Your task to perform on an android device: uninstall "Walmart Shopping & Grocery" Image 0: 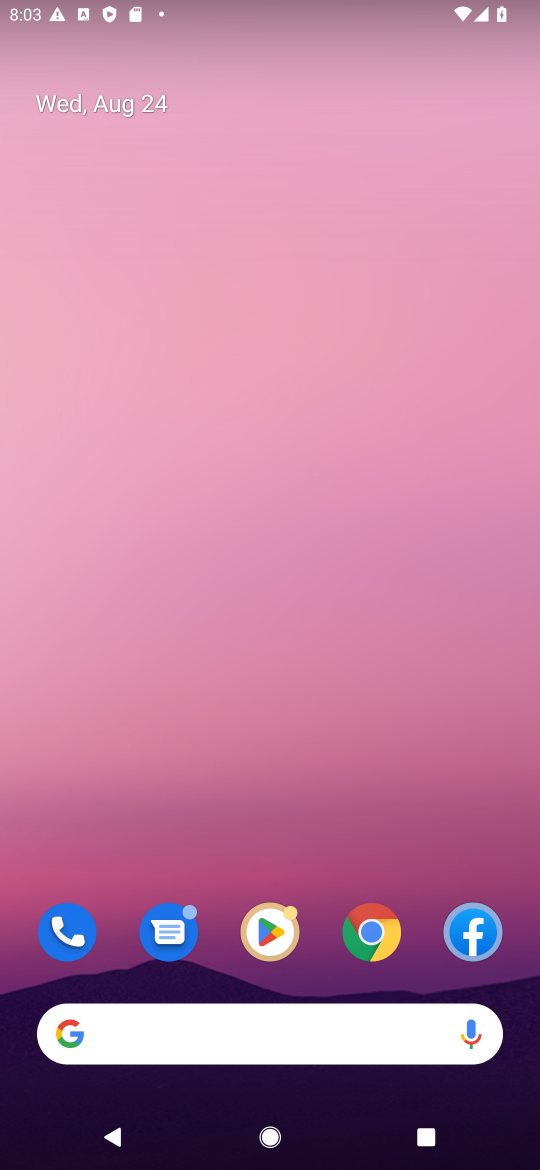
Step 0: click (270, 941)
Your task to perform on an android device: uninstall "Walmart Shopping & Grocery" Image 1: 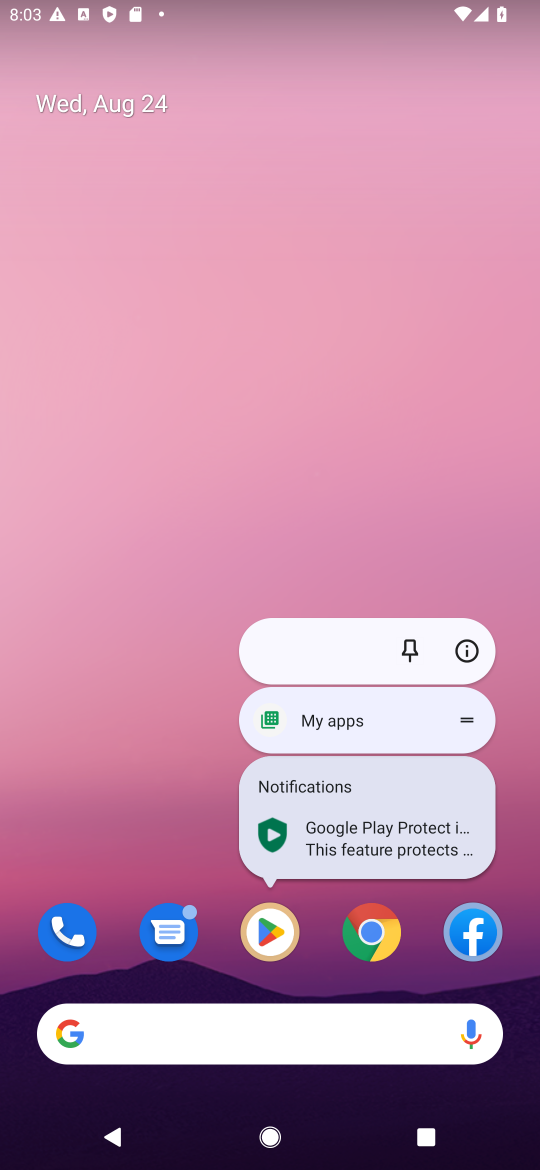
Step 1: click (265, 952)
Your task to perform on an android device: uninstall "Walmart Shopping & Grocery" Image 2: 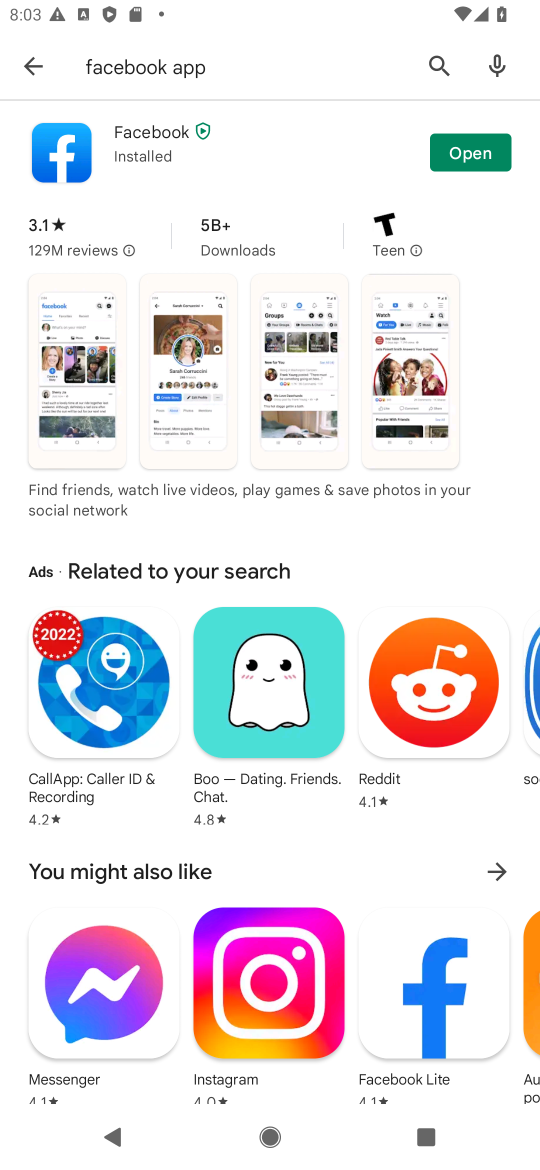
Step 2: click (224, 62)
Your task to perform on an android device: uninstall "Walmart Shopping & Grocery" Image 3: 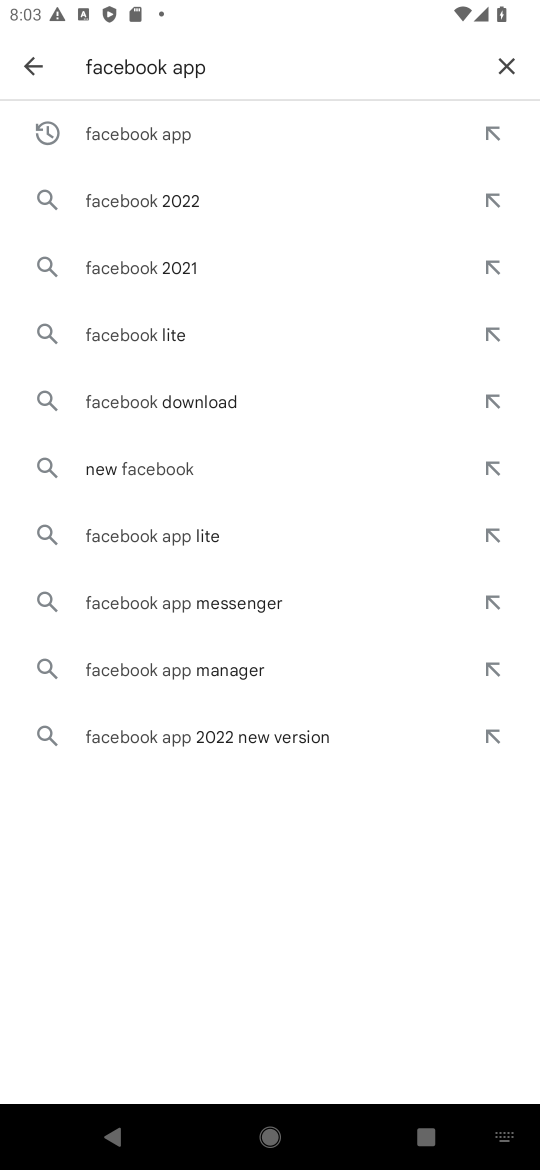
Step 3: click (515, 52)
Your task to perform on an android device: uninstall "Walmart Shopping & Grocery" Image 4: 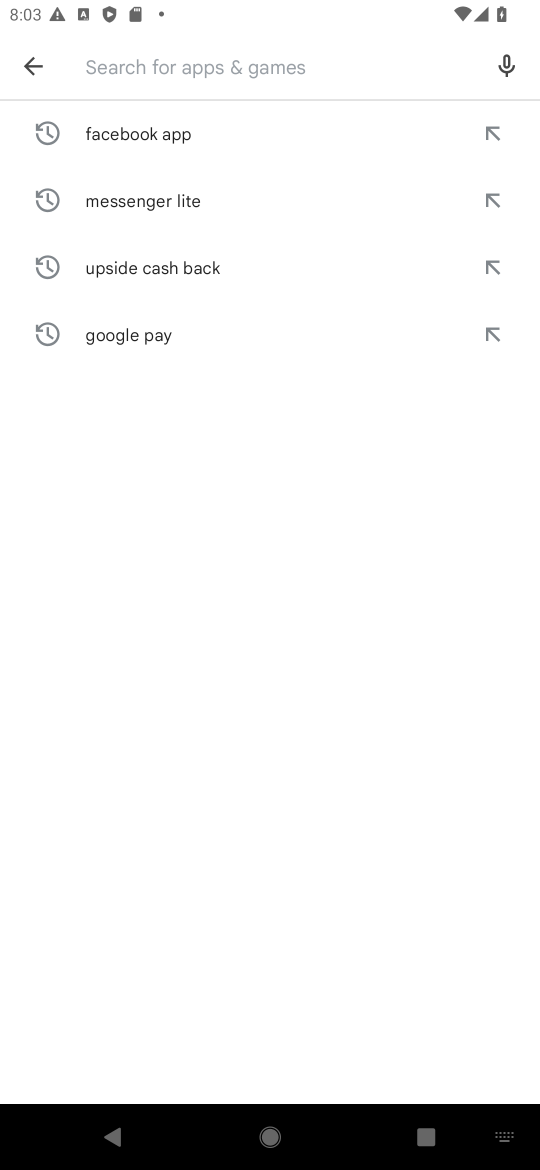
Step 4: type "walmart "
Your task to perform on an android device: uninstall "Walmart Shopping & Grocery" Image 5: 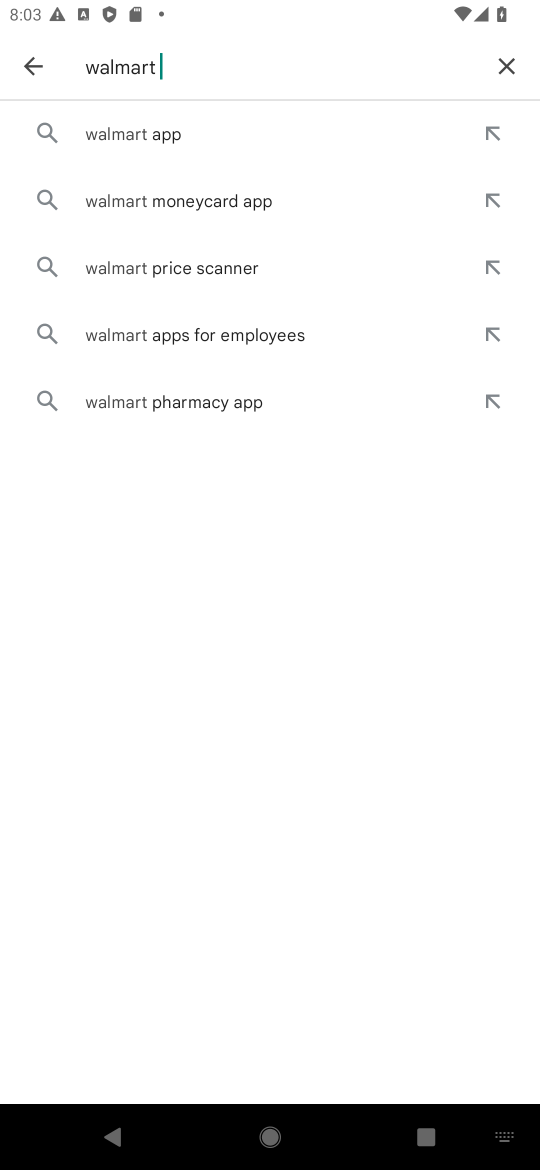
Step 5: click (93, 142)
Your task to perform on an android device: uninstall "Walmart Shopping & Grocery" Image 6: 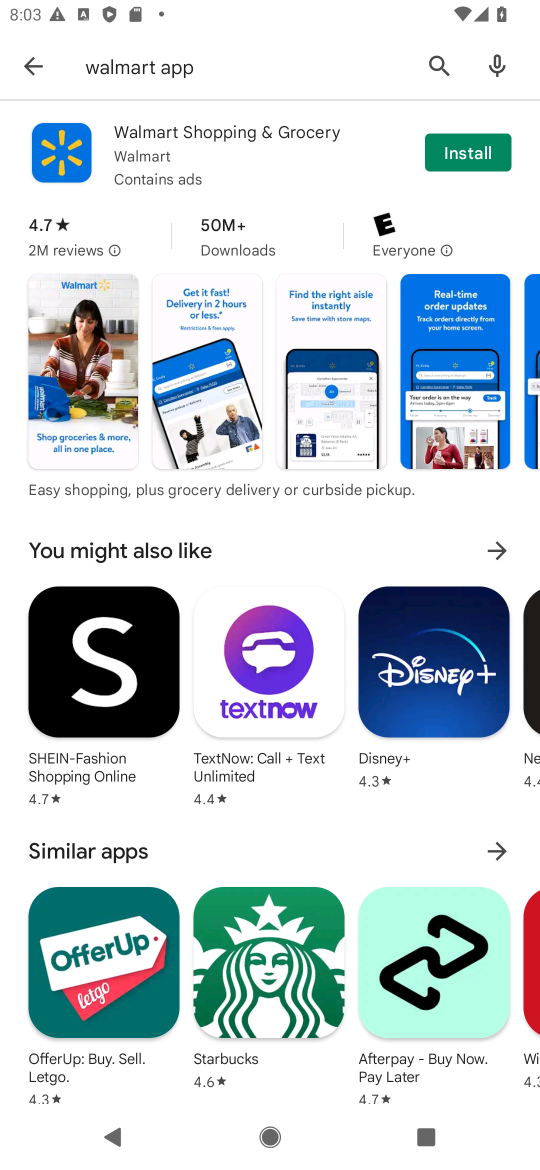
Step 6: task complete